Your task to perform on an android device: What's the weather? Image 0: 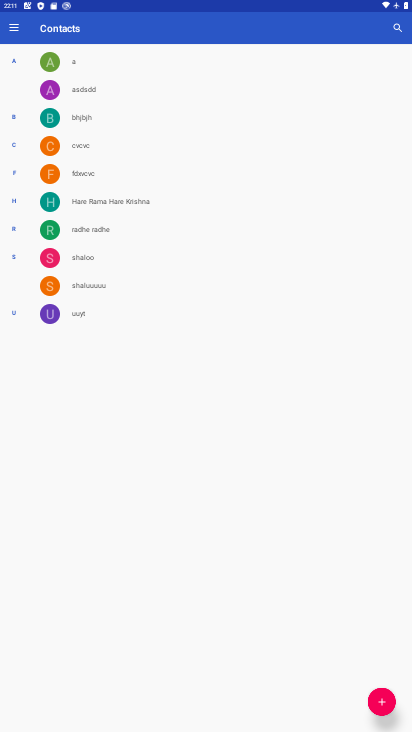
Step 0: press home button
Your task to perform on an android device: What's the weather? Image 1: 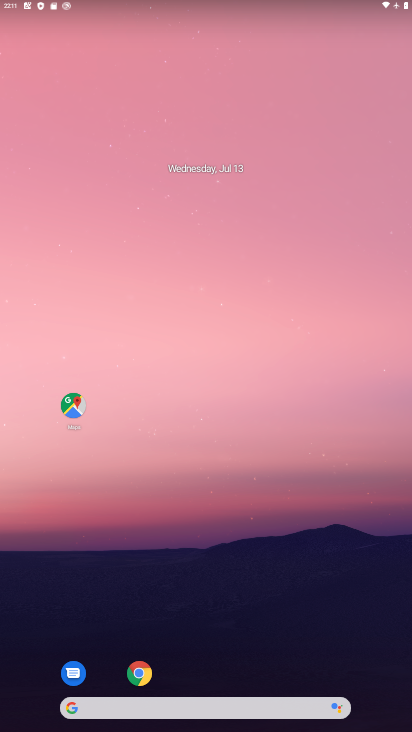
Step 1: drag from (195, 673) to (205, 255)
Your task to perform on an android device: What's the weather? Image 2: 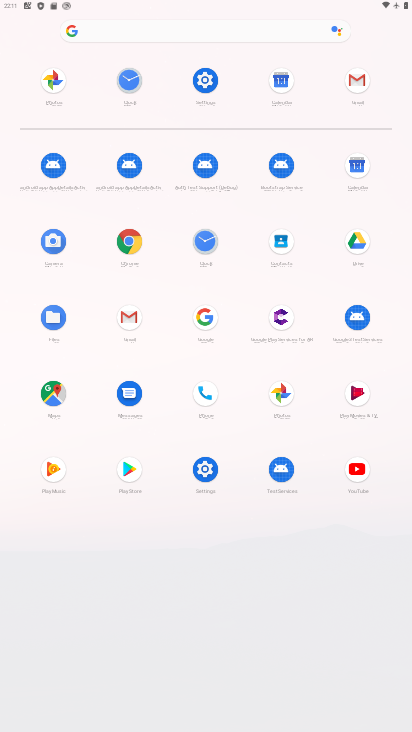
Step 2: click (201, 327)
Your task to perform on an android device: What's the weather? Image 3: 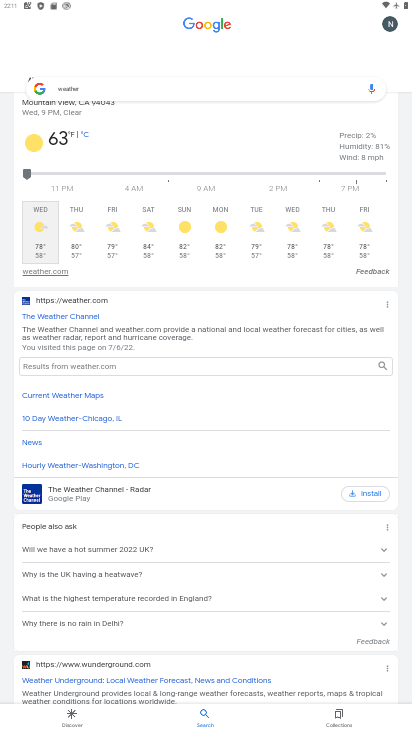
Step 3: click (241, 90)
Your task to perform on an android device: What's the weather? Image 4: 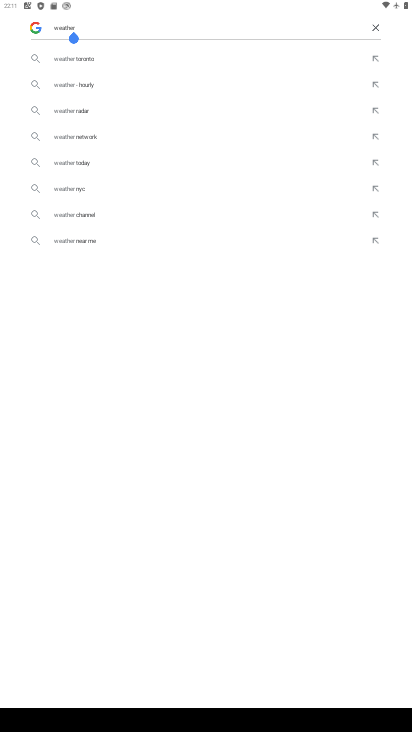
Step 4: click (375, 32)
Your task to perform on an android device: What's the weather? Image 5: 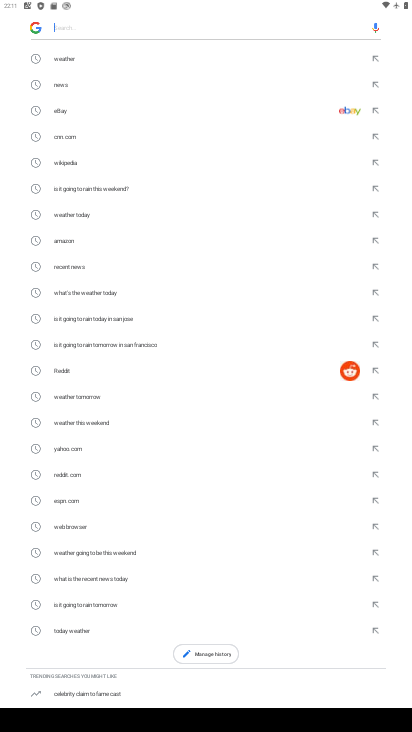
Step 5: click (61, 59)
Your task to perform on an android device: What's the weather? Image 6: 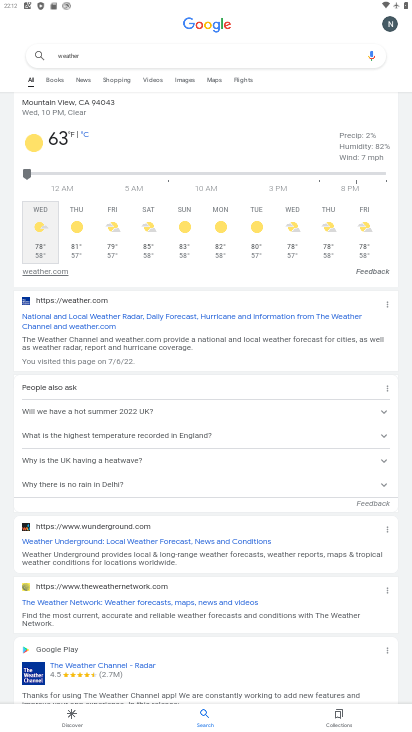
Step 6: task complete